Your task to perform on an android device: Open Youtube and go to the subscriptions tab Image 0: 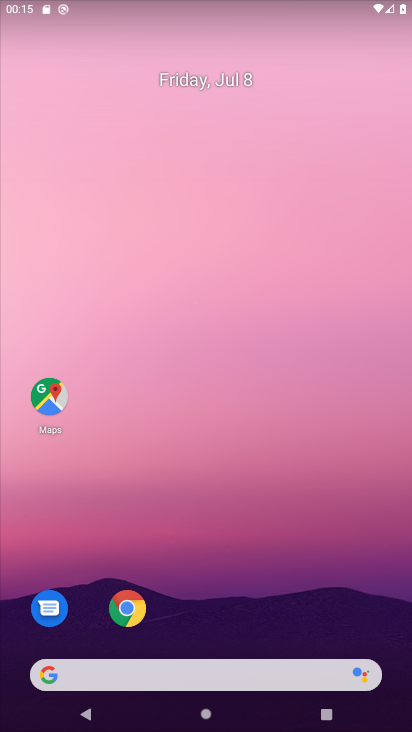
Step 0: drag from (175, 587) to (159, 193)
Your task to perform on an android device: Open Youtube and go to the subscriptions tab Image 1: 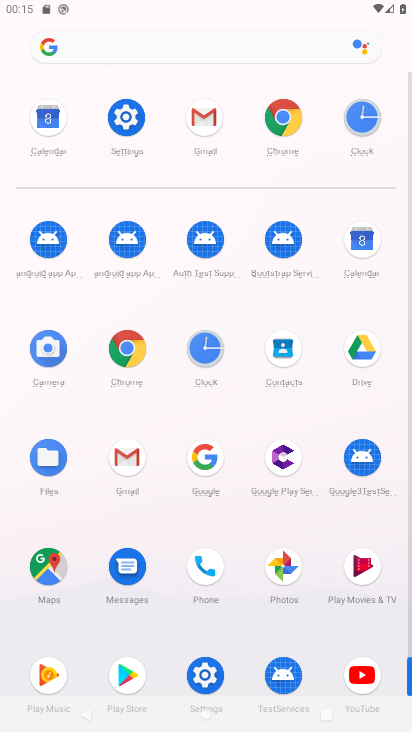
Step 1: click (369, 668)
Your task to perform on an android device: Open Youtube and go to the subscriptions tab Image 2: 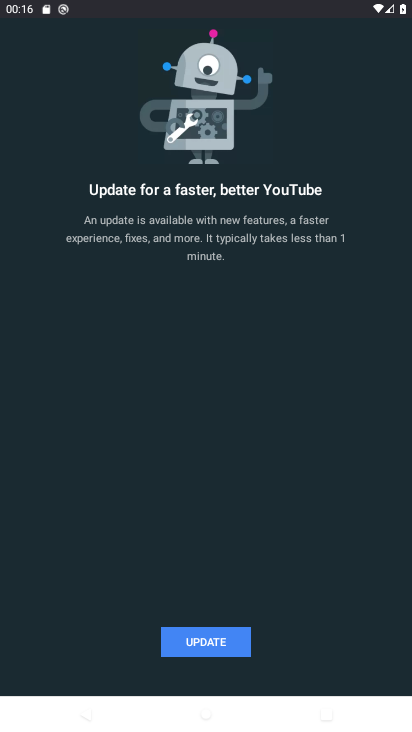
Step 2: task complete